Your task to perform on an android device: Search for vegetarian restaurants on Maps Image 0: 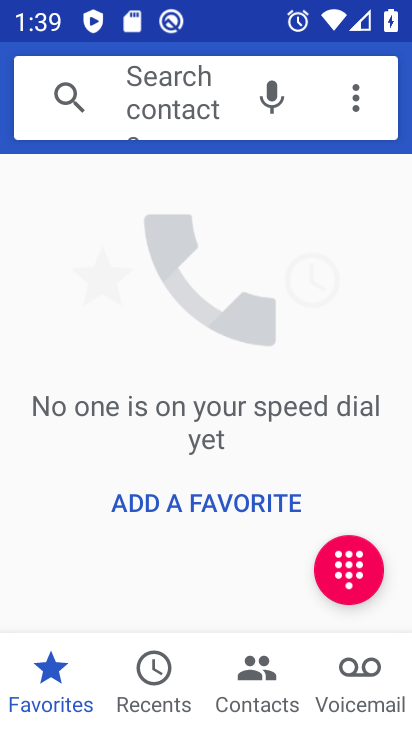
Step 0: press home button
Your task to perform on an android device: Search for vegetarian restaurants on Maps Image 1: 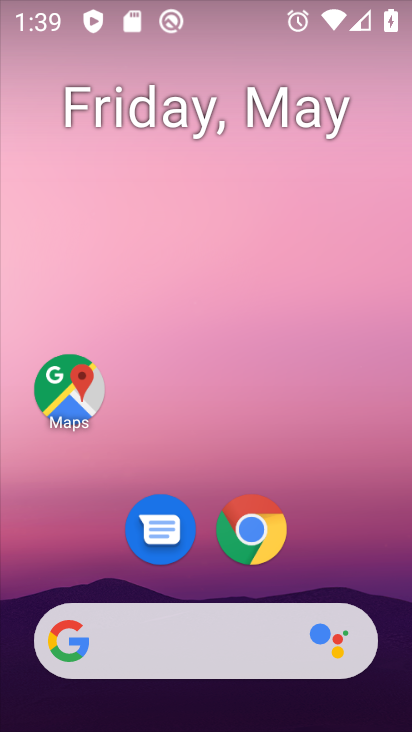
Step 1: click (104, 379)
Your task to perform on an android device: Search for vegetarian restaurants on Maps Image 2: 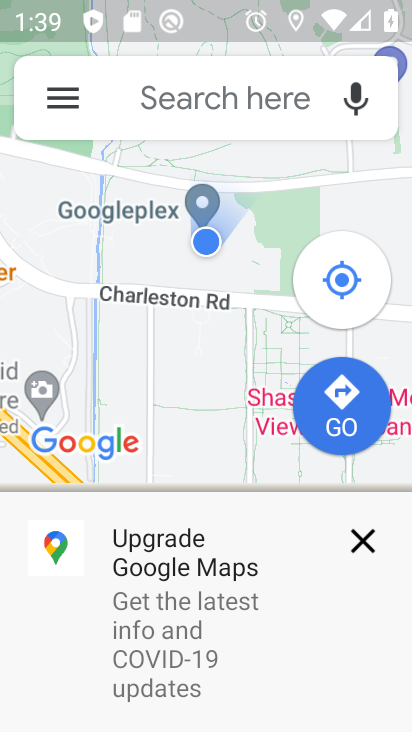
Step 2: click (103, 99)
Your task to perform on an android device: Search for vegetarian restaurants on Maps Image 3: 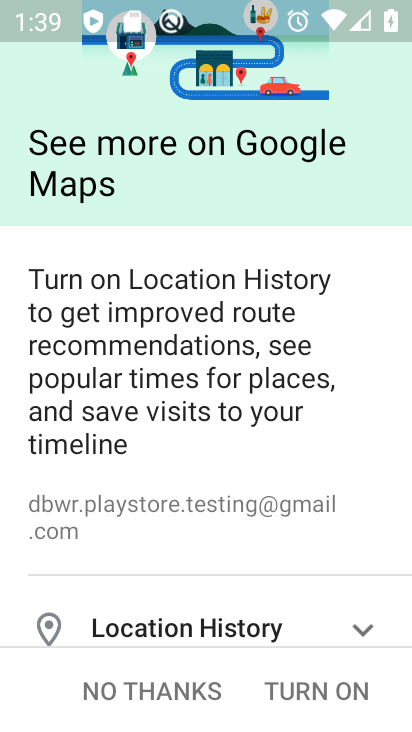
Step 3: click (301, 694)
Your task to perform on an android device: Search for vegetarian restaurants on Maps Image 4: 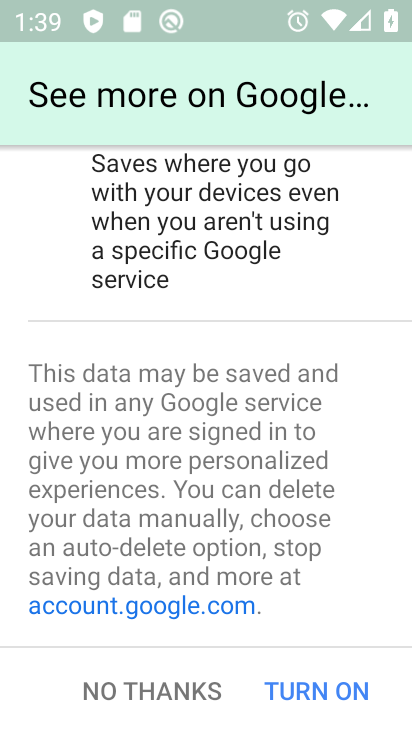
Step 4: click (319, 682)
Your task to perform on an android device: Search for vegetarian restaurants on Maps Image 5: 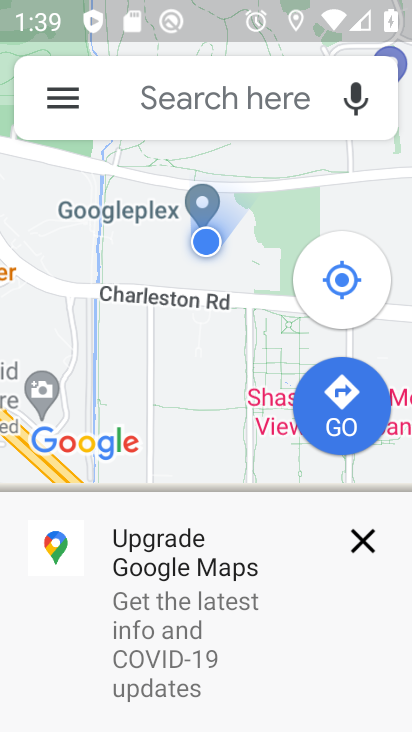
Step 5: click (150, 98)
Your task to perform on an android device: Search for vegetarian restaurants on Maps Image 6: 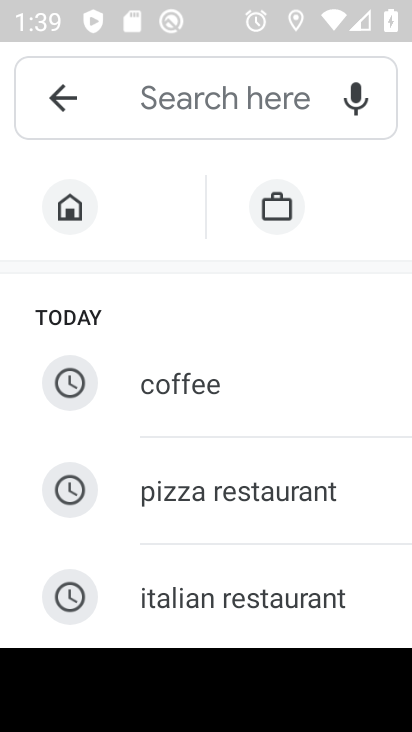
Step 6: type "vegetarian restaurants"
Your task to perform on an android device: Search for vegetarian restaurants on Maps Image 7: 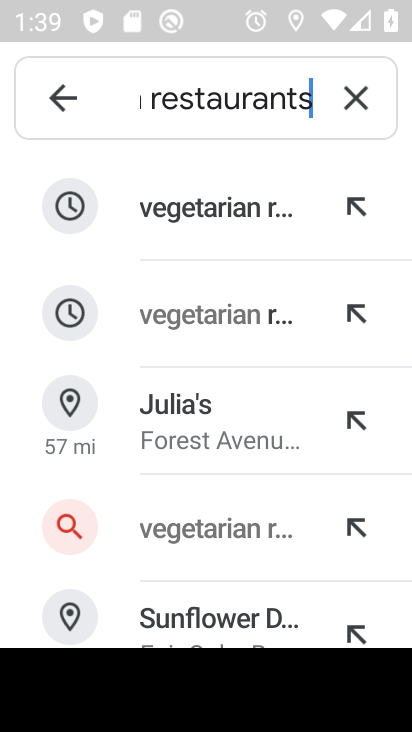
Step 7: click (237, 207)
Your task to perform on an android device: Search for vegetarian restaurants on Maps Image 8: 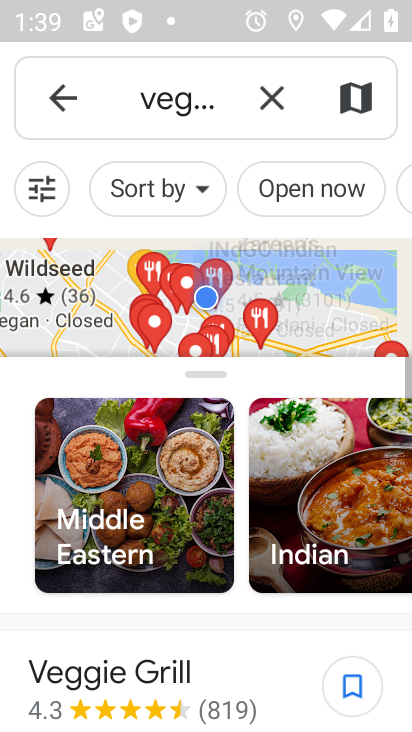
Step 8: task complete